Your task to perform on an android device: Go to display settings Image 0: 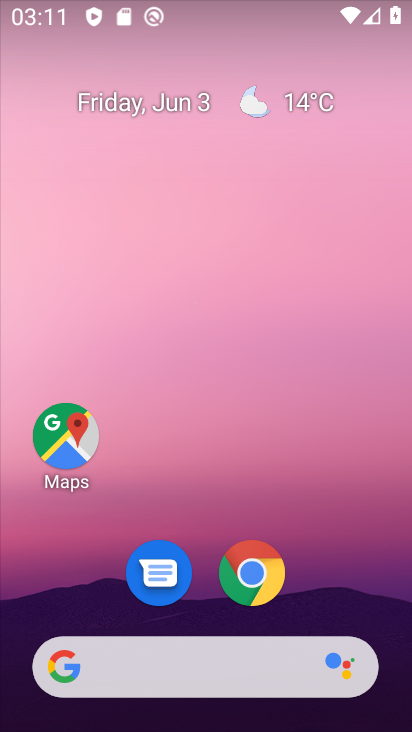
Step 0: drag from (298, 641) to (286, 0)
Your task to perform on an android device: Go to display settings Image 1: 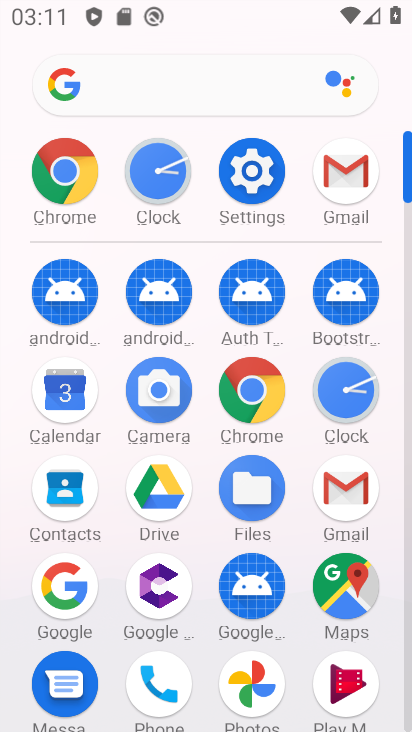
Step 1: click (260, 202)
Your task to perform on an android device: Go to display settings Image 2: 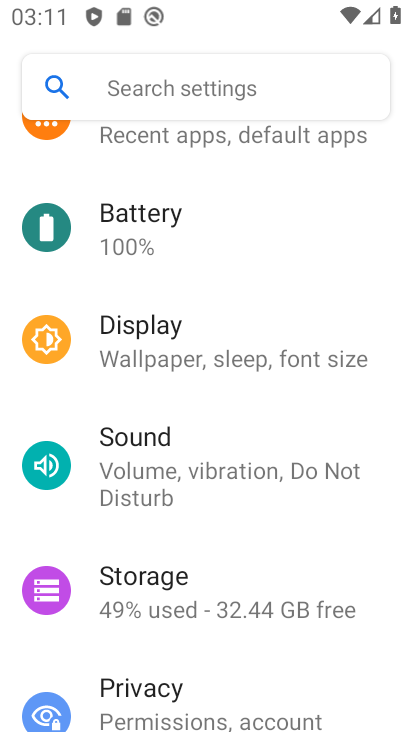
Step 2: click (190, 354)
Your task to perform on an android device: Go to display settings Image 3: 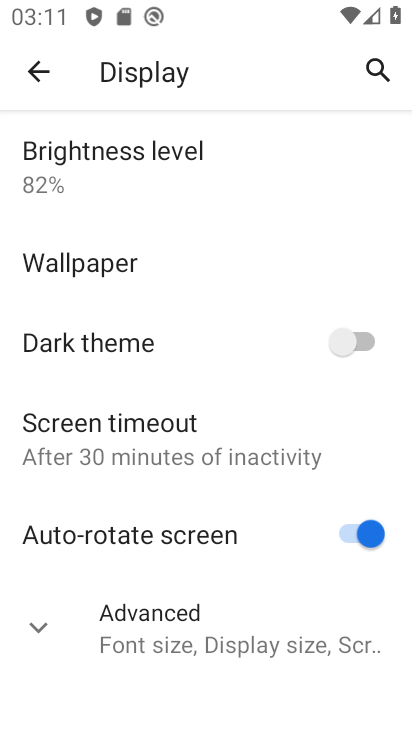
Step 3: task complete